Your task to perform on an android device: Go to eBay Image 0: 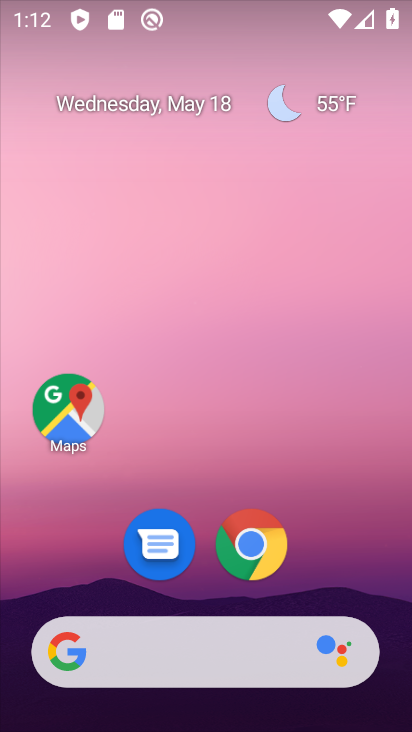
Step 0: click (248, 554)
Your task to perform on an android device: Go to eBay Image 1: 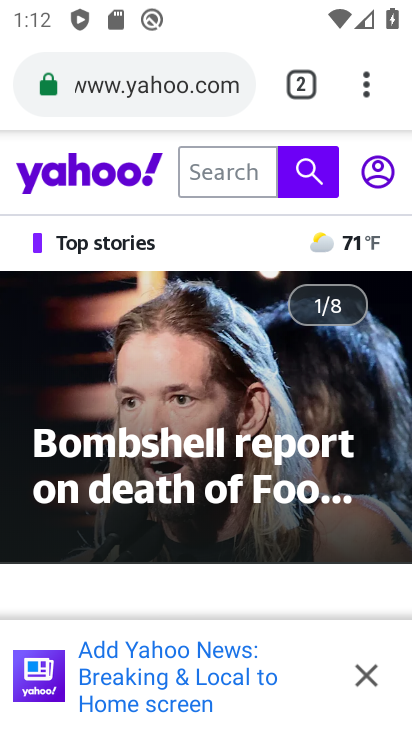
Step 1: click (292, 81)
Your task to perform on an android device: Go to eBay Image 2: 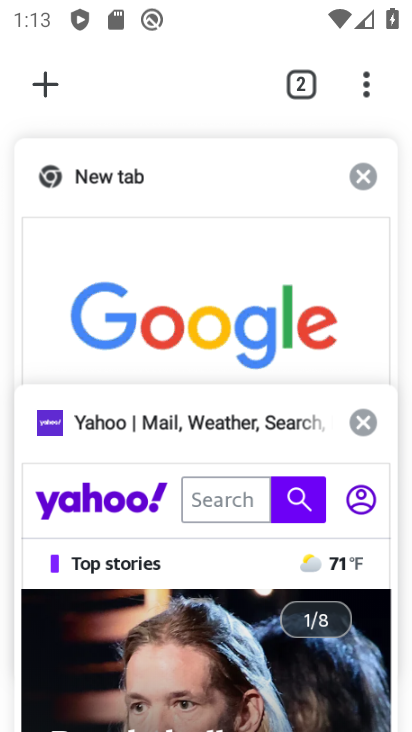
Step 2: click (130, 194)
Your task to perform on an android device: Go to eBay Image 3: 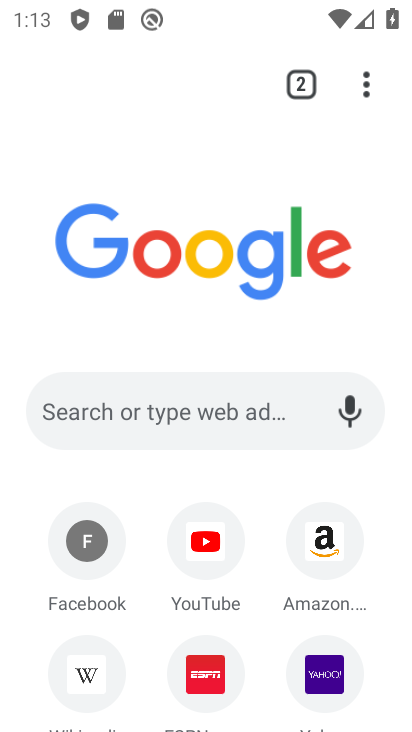
Step 3: click (217, 406)
Your task to perform on an android device: Go to eBay Image 4: 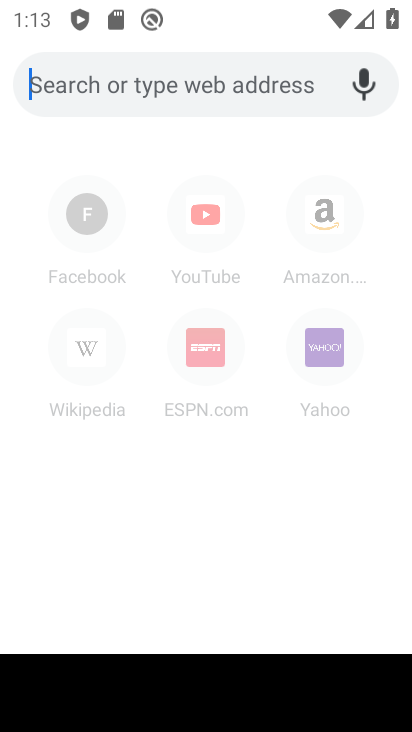
Step 4: type "ebay"
Your task to perform on an android device: Go to eBay Image 5: 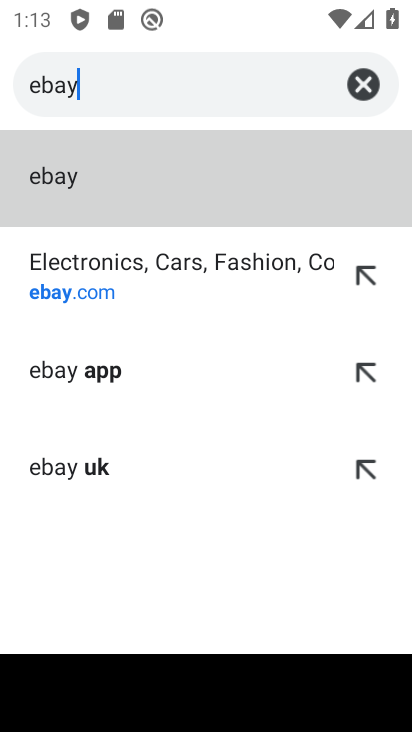
Step 5: click (174, 281)
Your task to perform on an android device: Go to eBay Image 6: 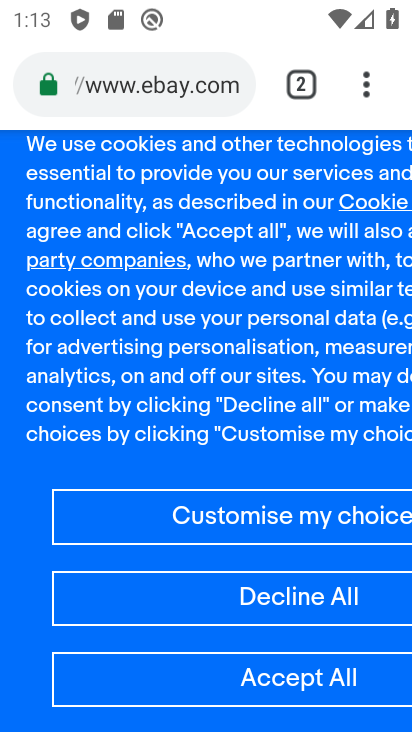
Step 6: task complete